Your task to perform on an android device: Open Google Chrome and open the bookmarks view Image 0: 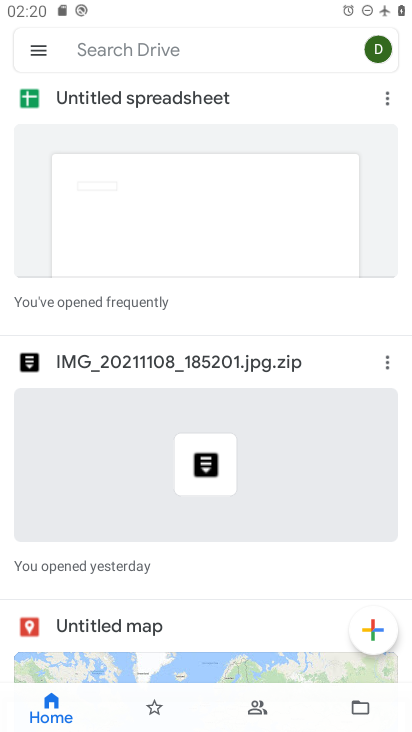
Step 0: press home button
Your task to perform on an android device: Open Google Chrome and open the bookmarks view Image 1: 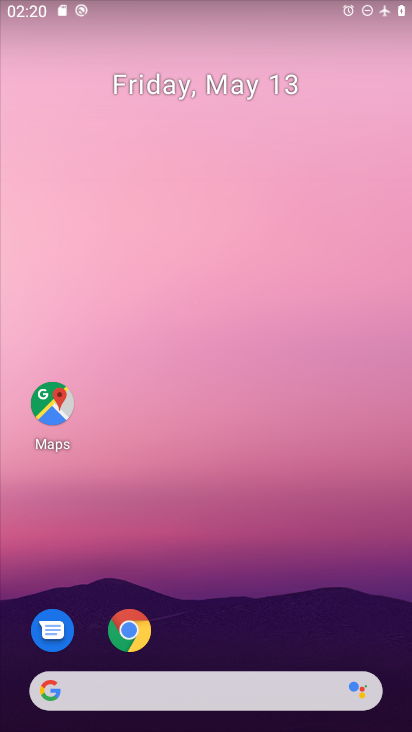
Step 1: drag from (238, 685) to (264, 97)
Your task to perform on an android device: Open Google Chrome and open the bookmarks view Image 2: 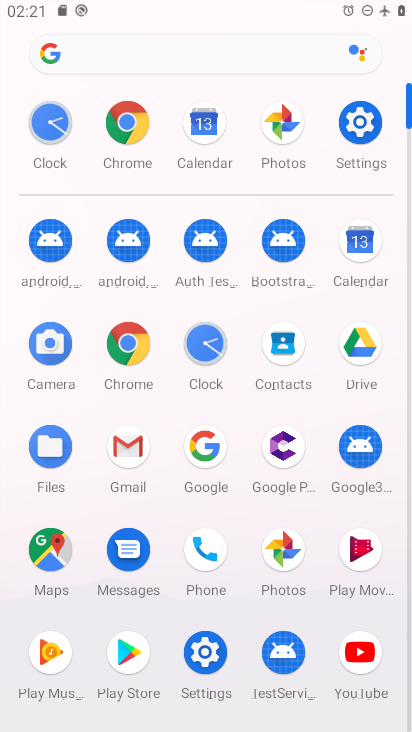
Step 2: click (137, 325)
Your task to perform on an android device: Open Google Chrome and open the bookmarks view Image 3: 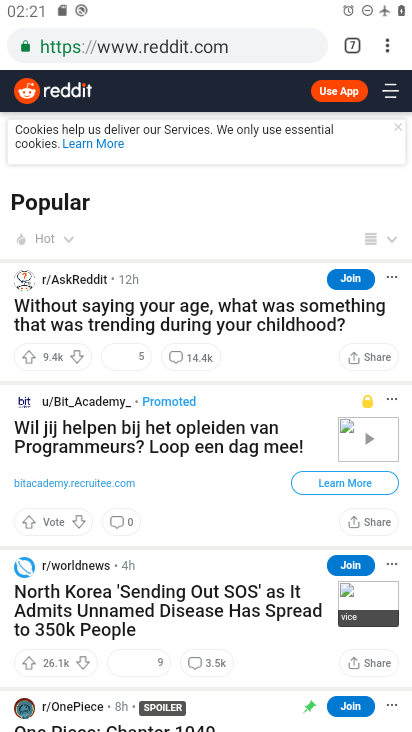
Step 3: click (388, 57)
Your task to perform on an android device: Open Google Chrome and open the bookmarks view Image 4: 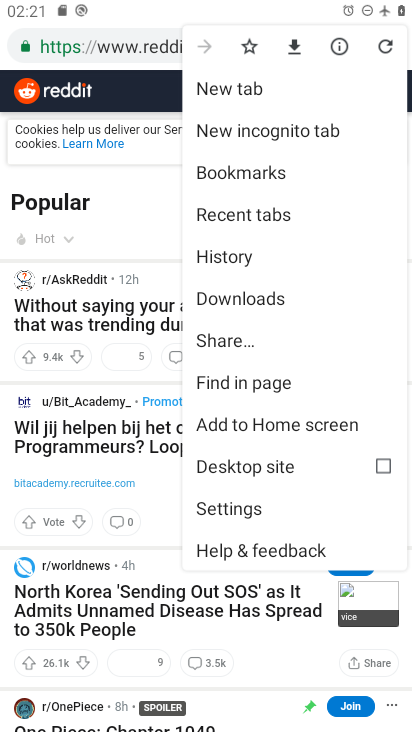
Step 4: click (251, 175)
Your task to perform on an android device: Open Google Chrome and open the bookmarks view Image 5: 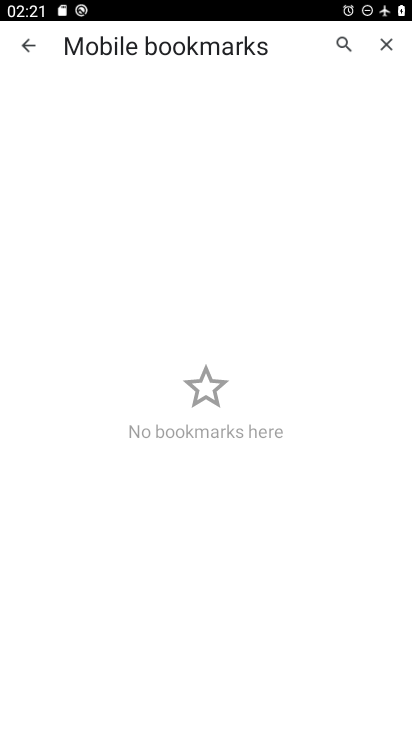
Step 5: task complete